Your task to perform on an android device: What is the news today? Image 0: 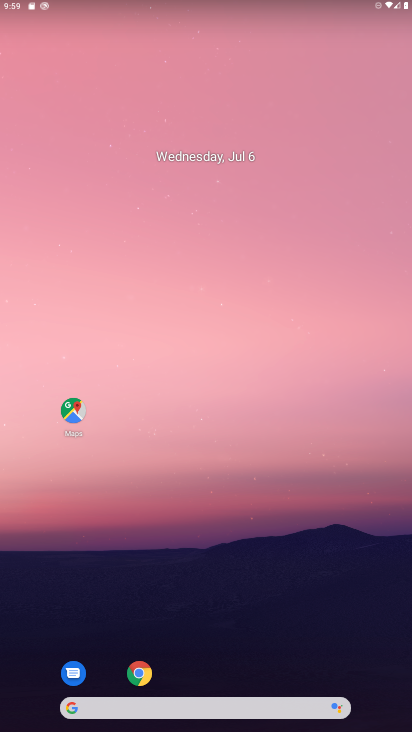
Step 0: click (177, 710)
Your task to perform on an android device: What is the news today? Image 1: 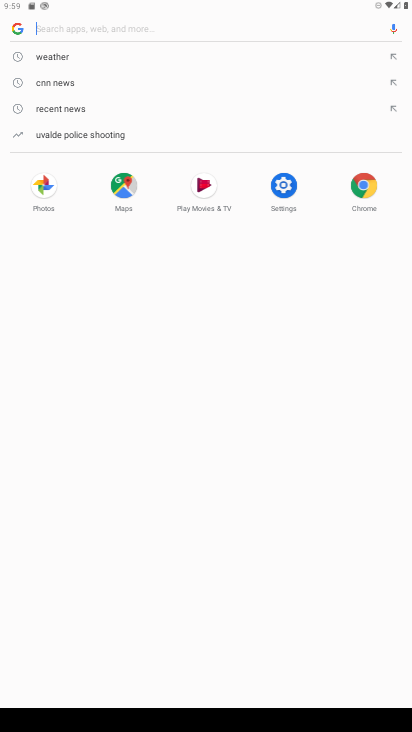
Step 1: click (15, 29)
Your task to perform on an android device: What is the news today? Image 2: 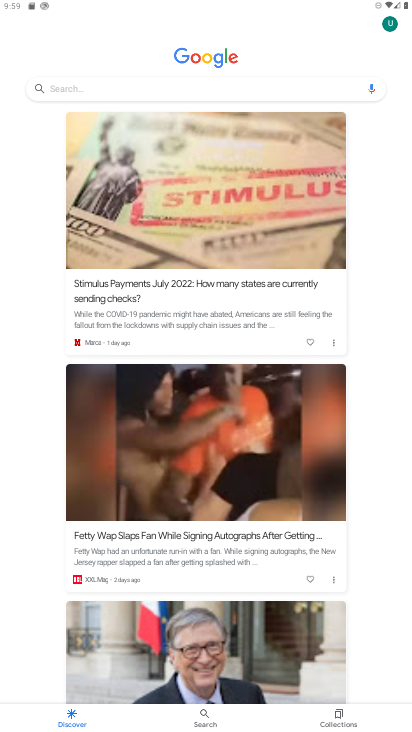
Step 2: task complete